Your task to perform on an android device: turn off picture-in-picture Image 0: 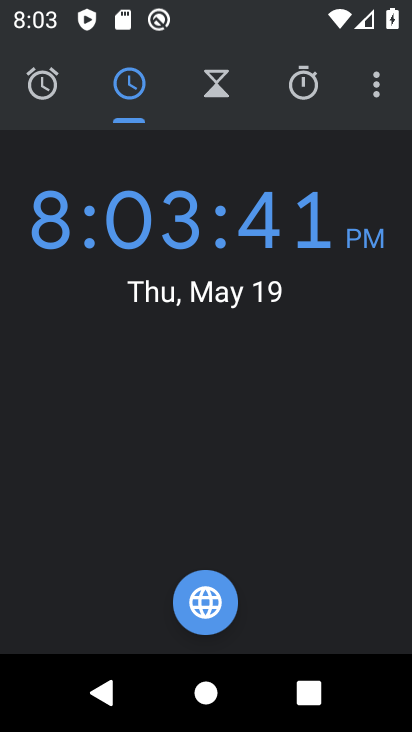
Step 0: press back button
Your task to perform on an android device: turn off picture-in-picture Image 1: 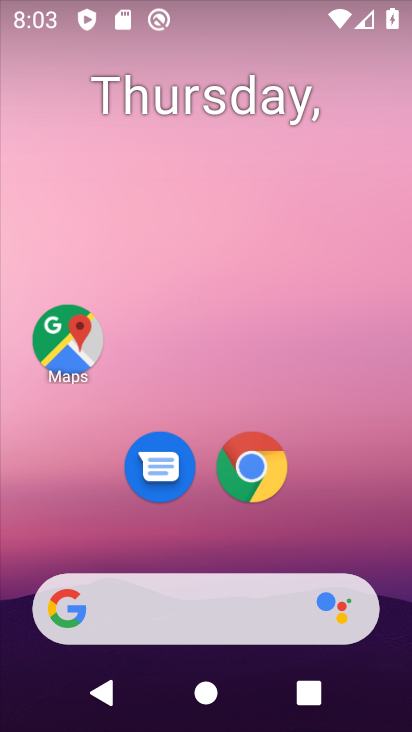
Step 1: drag from (193, 509) to (264, 22)
Your task to perform on an android device: turn off picture-in-picture Image 2: 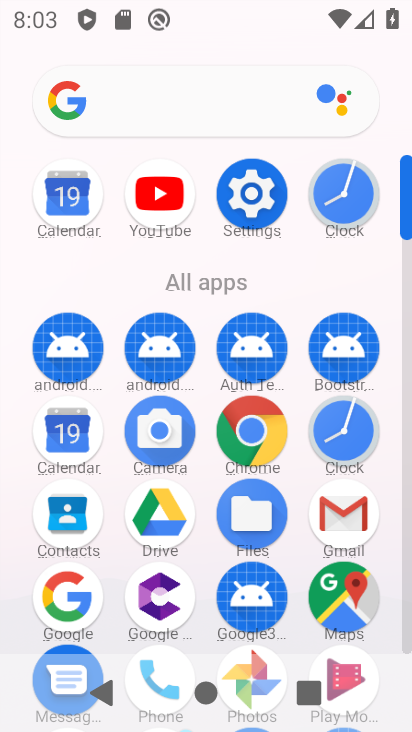
Step 2: click (249, 196)
Your task to perform on an android device: turn off picture-in-picture Image 3: 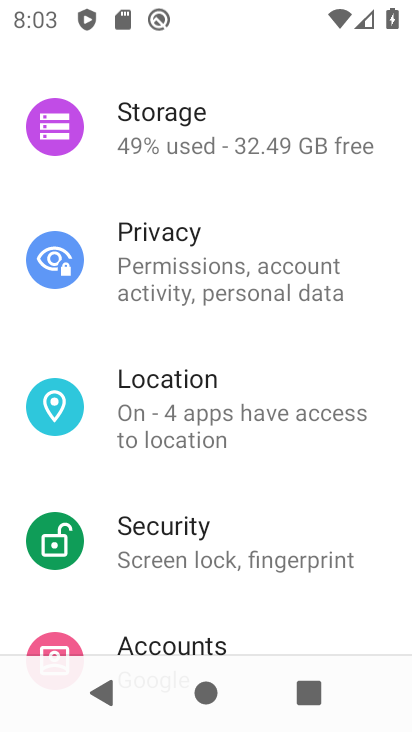
Step 3: drag from (211, 163) to (194, 581)
Your task to perform on an android device: turn off picture-in-picture Image 4: 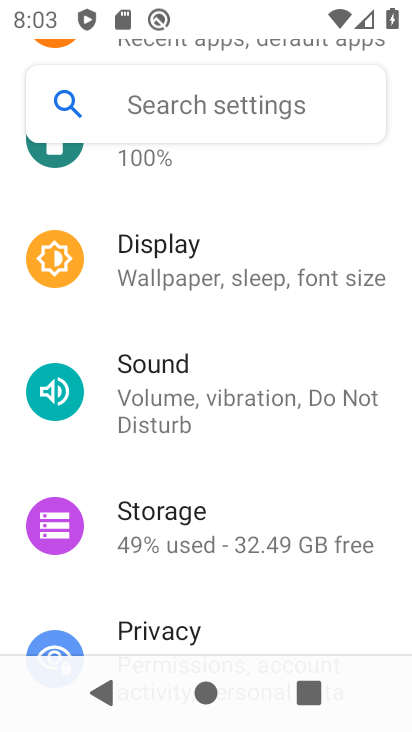
Step 4: drag from (247, 241) to (184, 592)
Your task to perform on an android device: turn off picture-in-picture Image 5: 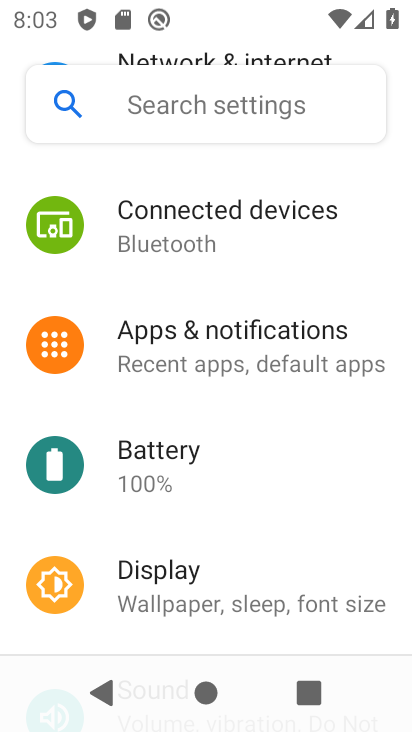
Step 5: click (222, 343)
Your task to perform on an android device: turn off picture-in-picture Image 6: 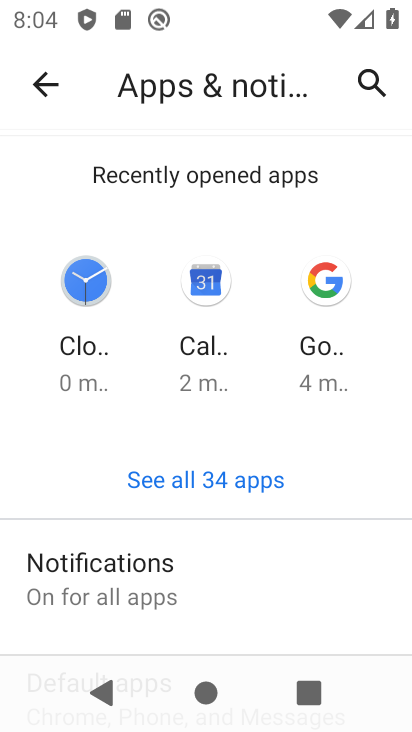
Step 6: drag from (204, 577) to (275, 267)
Your task to perform on an android device: turn off picture-in-picture Image 7: 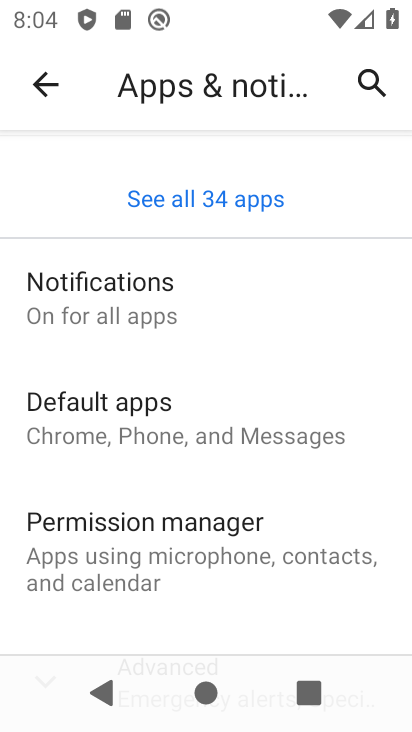
Step 7: click (195, 304)
Your task to perform on an android device: turn off picture-in-picture Image 8: 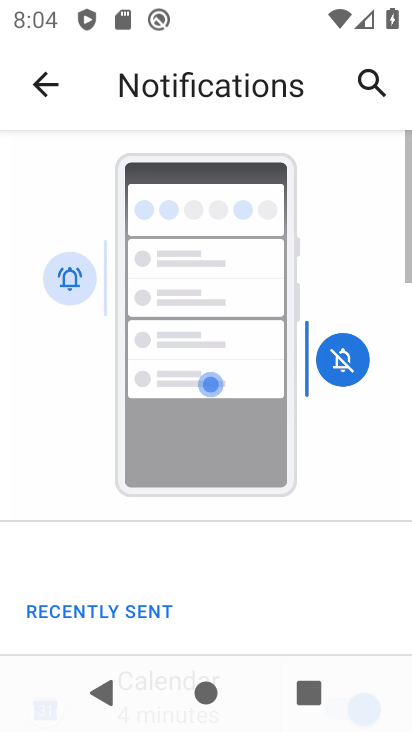
Step 8: drag from (157, 606) to (259, 247)
Your task to perform on an android device: turn off picture-in-picture Image 9: 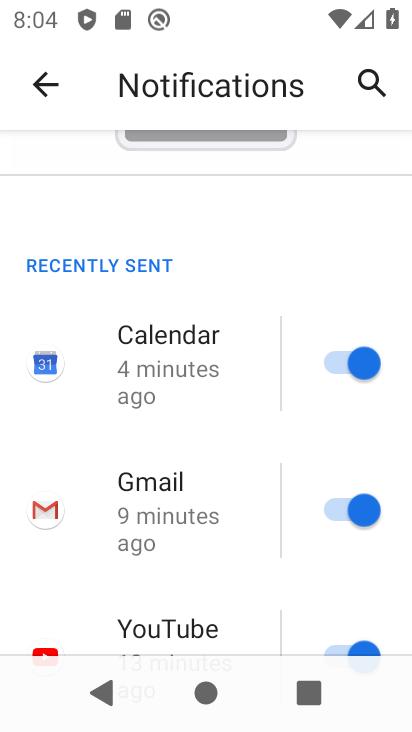
Step 9: drag from (149, 621) to (248, 139)
Your task to perform on an android device: turn off picture-in-picture Image 10: 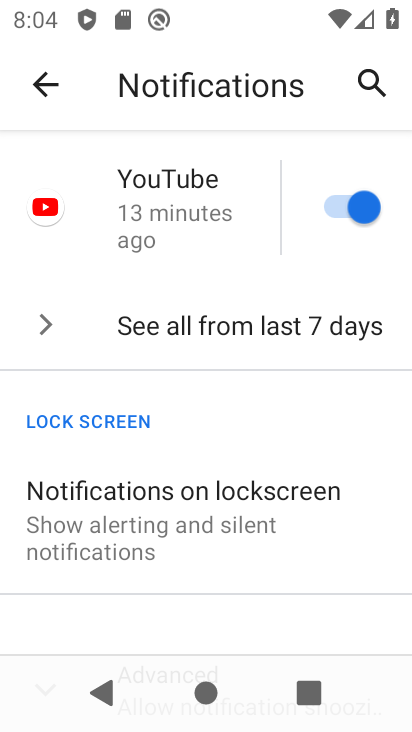
Step 10: drag from (212, 519) to (271, 215)
Your task to perform on an android device: turn off picture-in-picture Image 11: 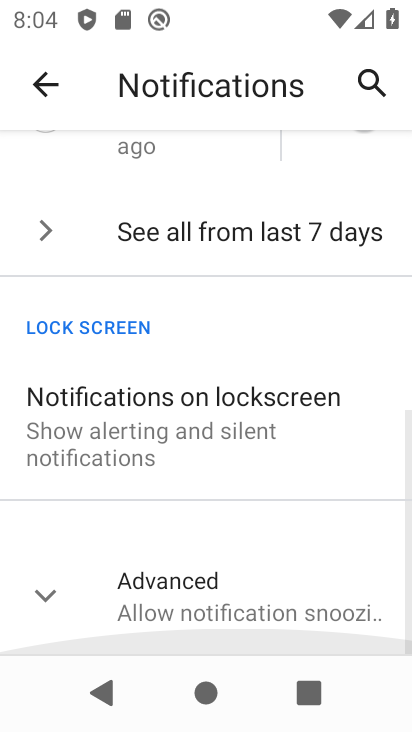
Step 11: drag from (211, 559) to (269, 119)
Your task to perform on an android device: turn off picture-in-picture Image 12: 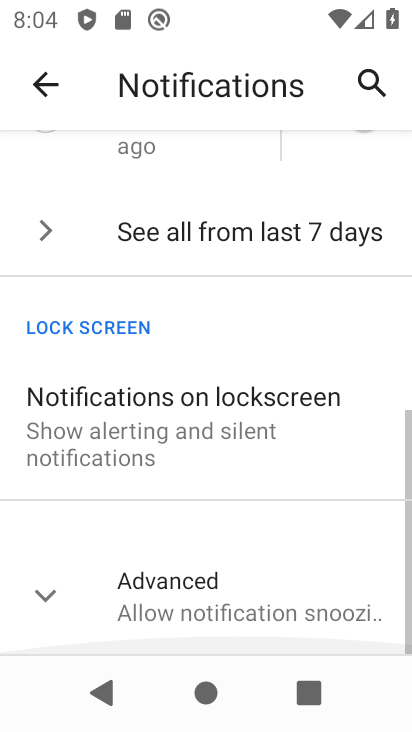
Step 12: click (37, 79)
Your task to perform on an android device: turn off picture-in-picture Image 13: 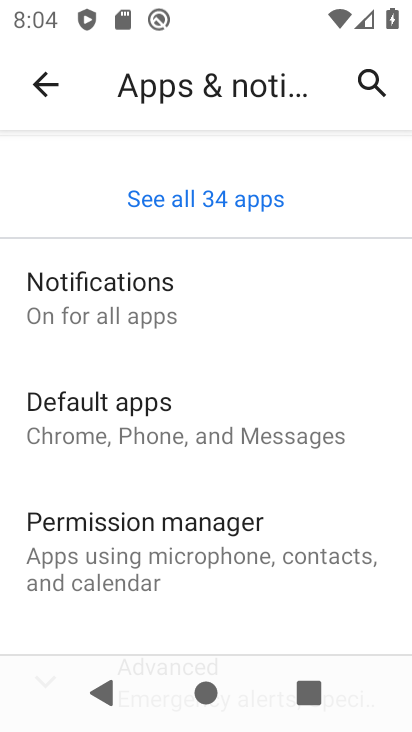
Step 13: drag from (209, 532) to (297, 37)
Your task to perform on an android device: turn off picture-in-picture Image 14: 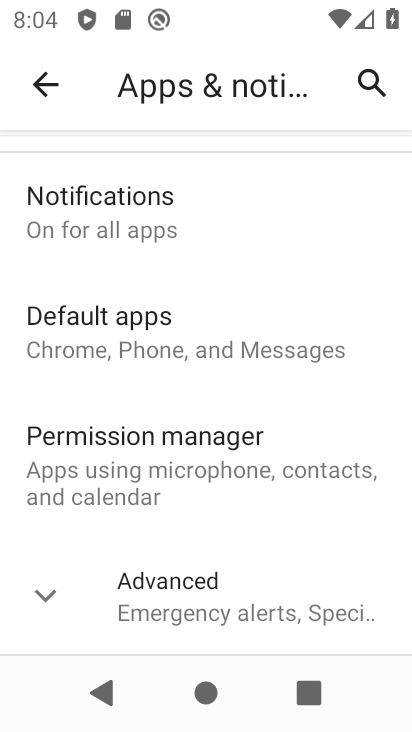
Step 14: click (208, 567)
Your task to perform on an android device: turn off picture-in-picture Image 15: 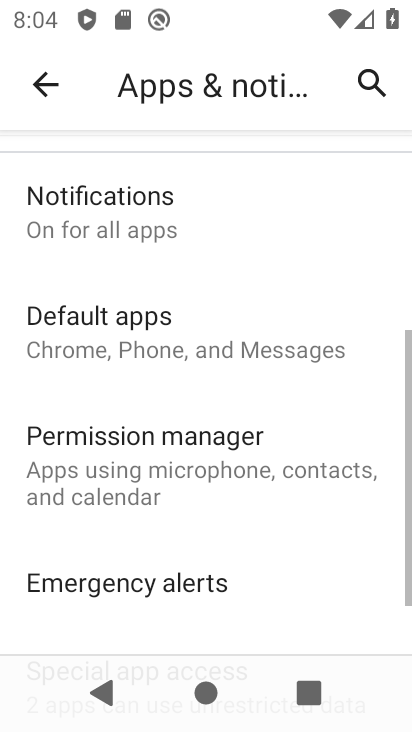
Step 15: drag from (182, 573) to (274, 28)
Your task to perform on an android device: turn off picture-in-picture Image 16: 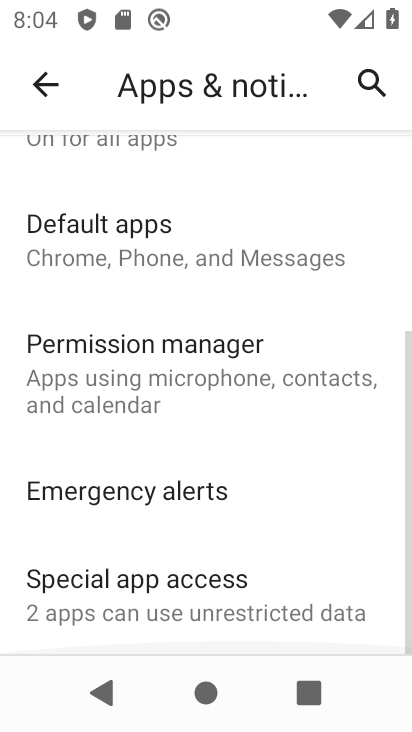
Step 16: click (116, 584)
Your task to perform on an android device: turn off picture-in-picture Image 17: 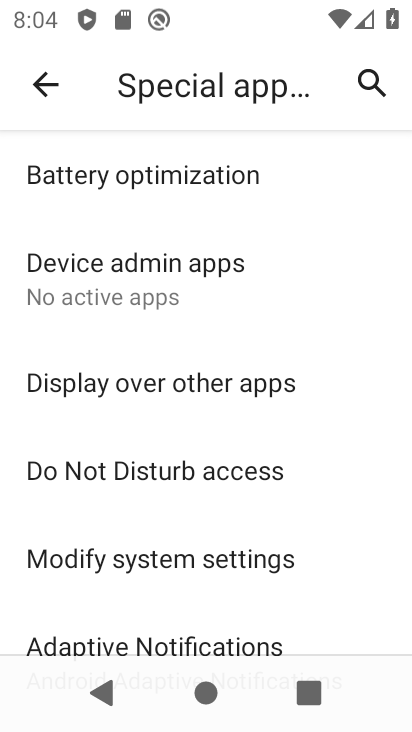
Step 17: drag from (128, 591) to (248, 159)
Your task to perform on an android device: turn off picture-in-picture Image 18: 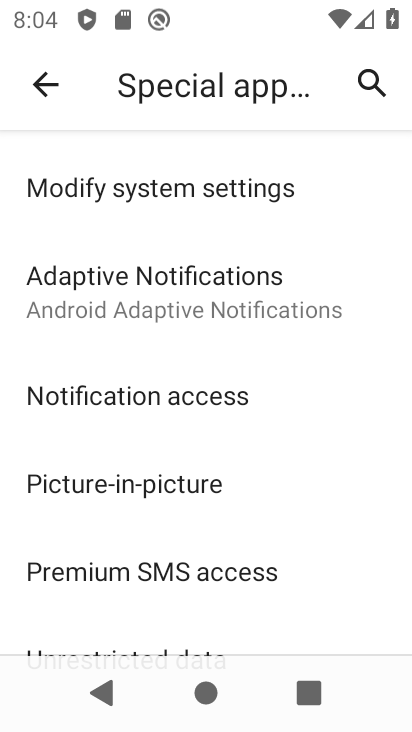
Step 18: click (147, 487)
Your task to perform on an android device: turn off picture-in-picture Image 19: 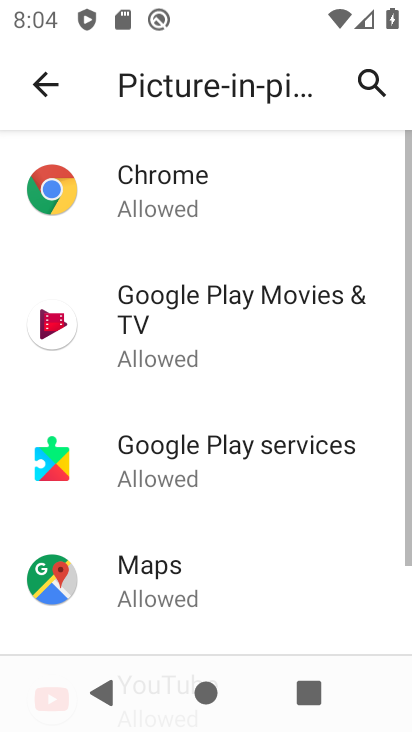
Step 19: click (165, 196)
Your task to perform on an android device: turn off picture-in-picture Image 20: 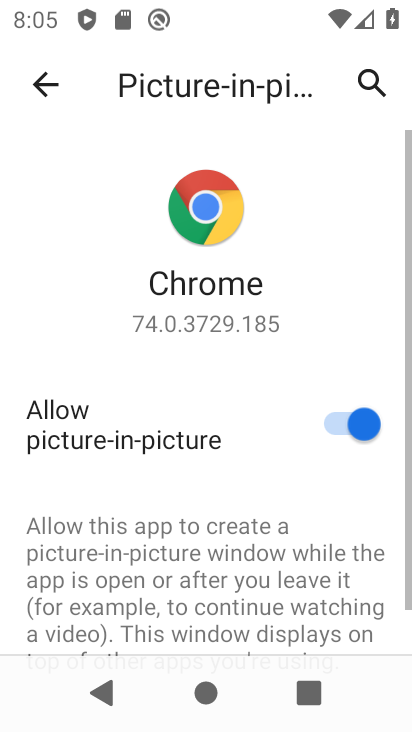
Step 20: click (344, 417)
Your task to perform on an android device: turn off picture-in-picture Image 21: 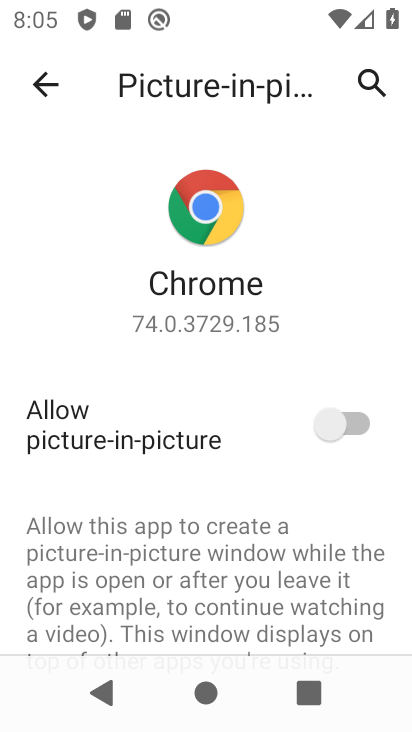
Step 21: task complete